Your task to perform on an android device: change the clock display to analog Image 0: 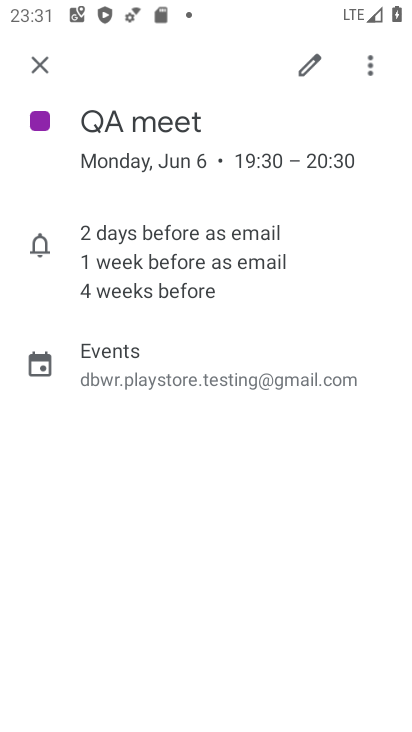
Step 0: drag from (277, 681) to (223, 243)
Your task to perform on an android device: change the clock display to analog Image 1: 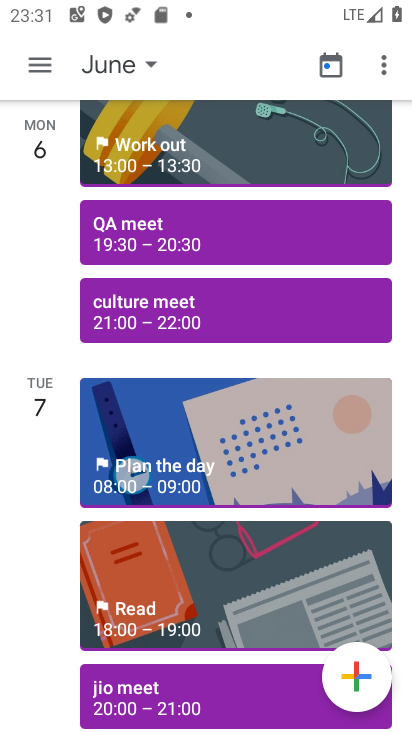
Step 1: press back button
Your task to perform on an android device: change the clock display to analog Image 2: 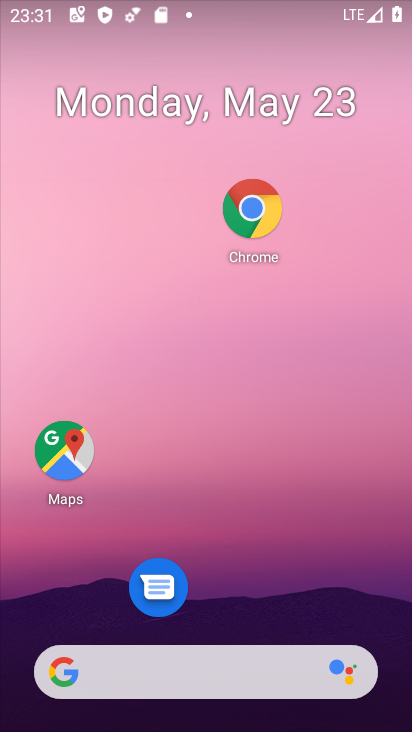
Step 2: drag from (284, 415) to (227, 80)
Your task to perform on an android device: change the clock display to analog Image 3: 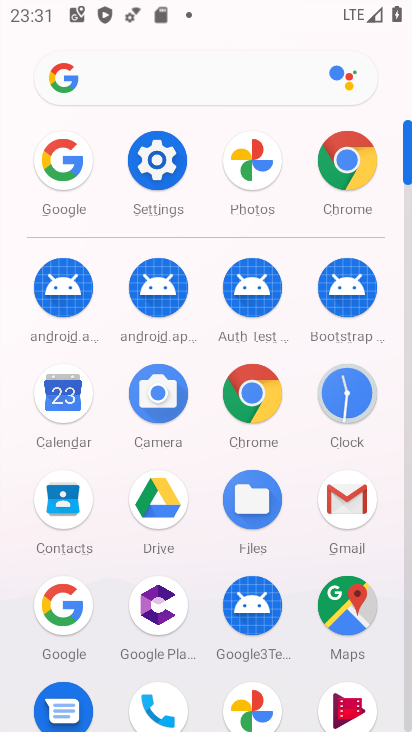
Step 3: click (346, 400)
Your task to perform on an android device: change the clock display to analog Image 4: 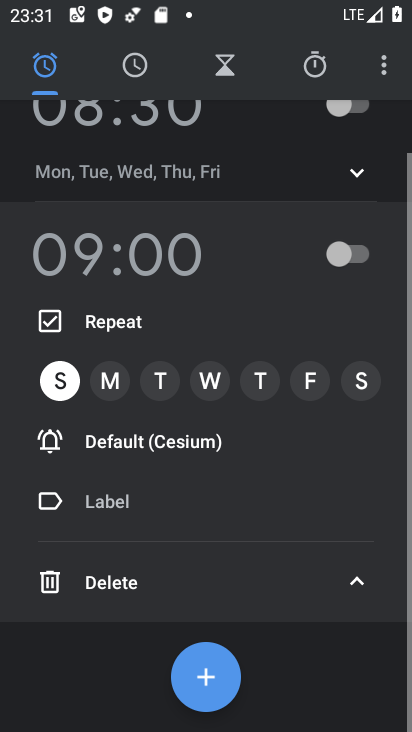
Step 4: drag from (380, 66) to (229, 134)
Your task to perform on an android device: change the clock display to analog Image 5: 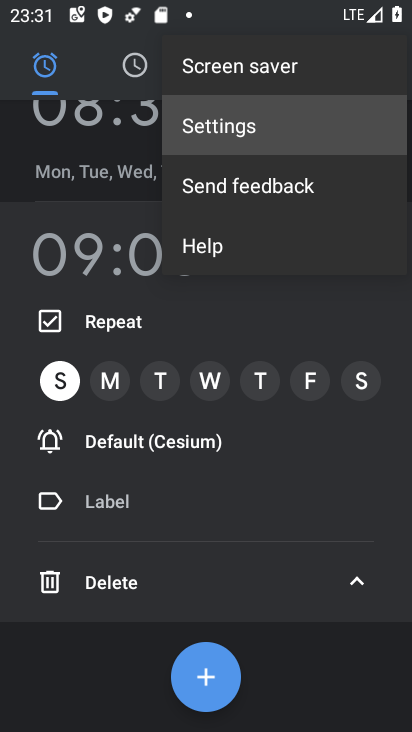
Step 5: click (228, 135)
Your task to perform on an android device: change the clock display to analog Image 6: 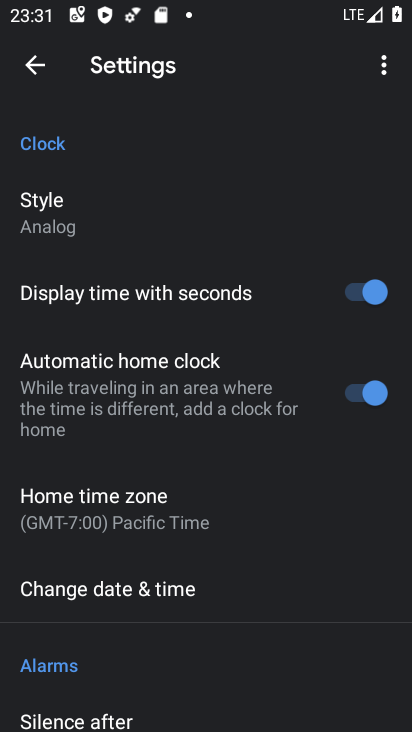
Step 6: click (111, 204)
Your task to perform on an android device: change the clock display to analog Image 7: 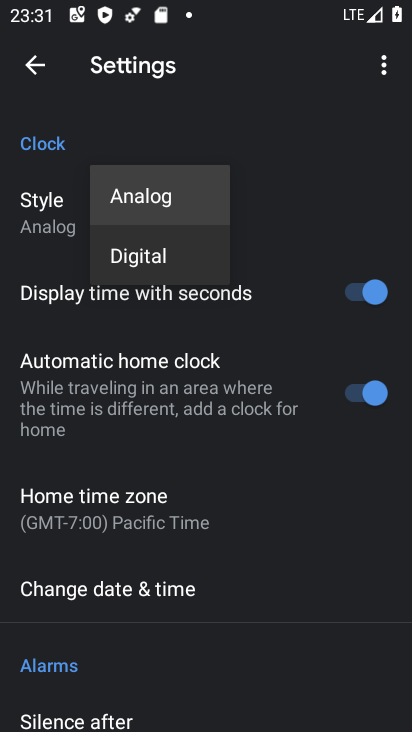
Step 7: click (165, 196)
Your task to perform on an android device: change the clock display to analog Image 8: 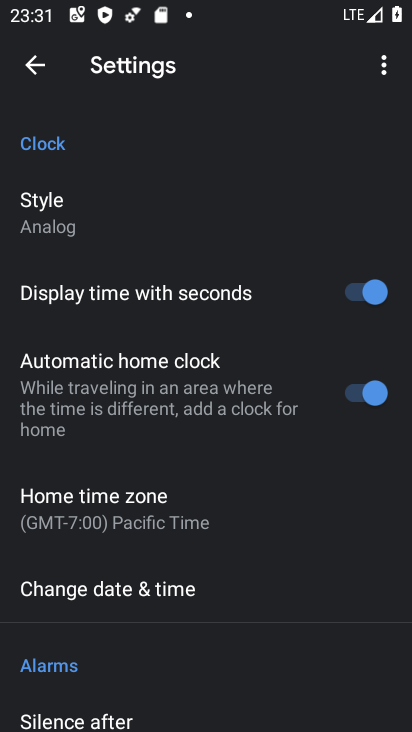
Step 8: task complete